Your task to perform on an android device: Go to sound settings Image 0: 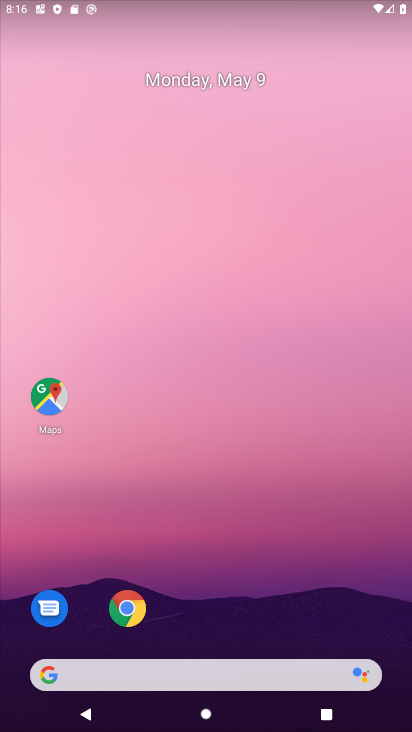
Step 0: drag from (173, 659) to (283, 0)
Your task to perform on an android device: Go to sound settings Image 1: 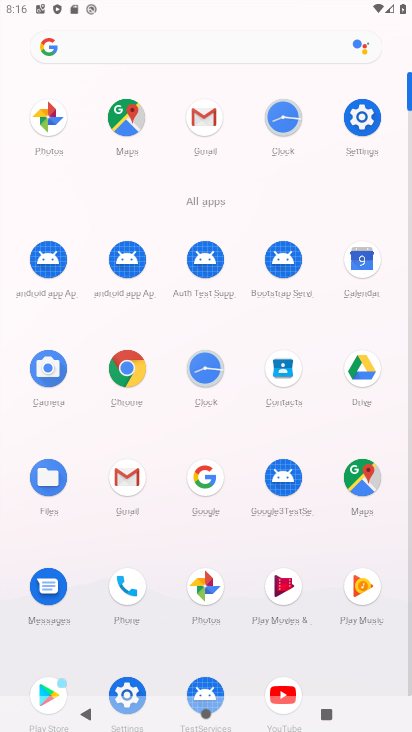
Step 1: click (119, 677)
Your task to perform on an android device: Go to sound settings Image 2: 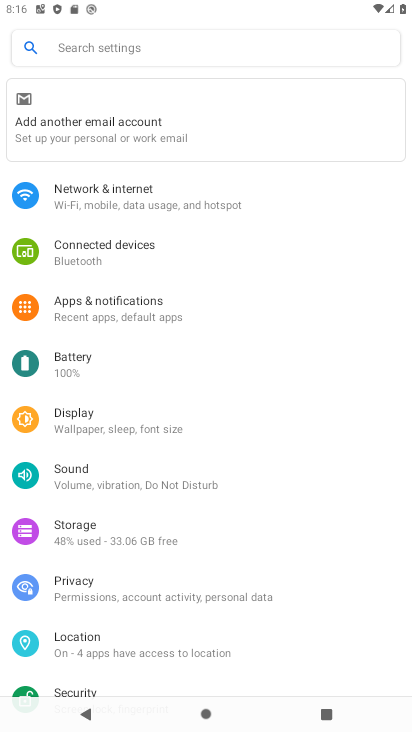
Step 2: click (102, 475)
Your task to perform on an android device: Go to sound settings Image 3: 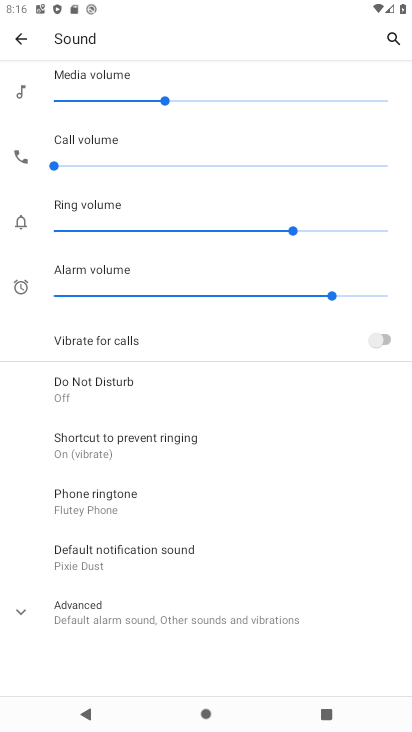
Step 3: task complete